Your task to perform on an android device: toggle translation in the chrome app Image 0: 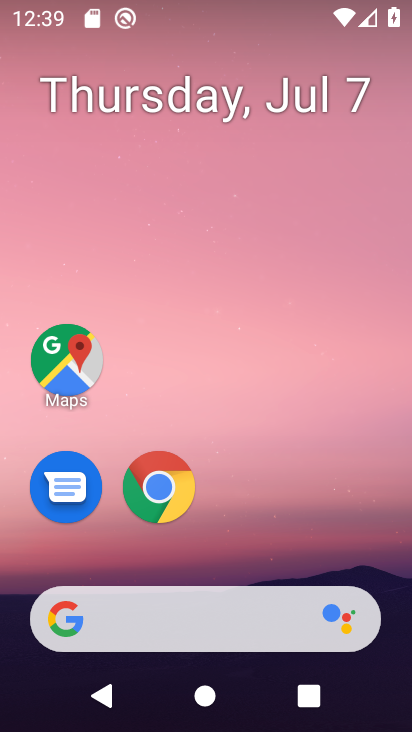
Step 0: drag from (334, 531) to (337, 129)
Your task to perform on an android device: toggle translation in the chrome app Image 1: 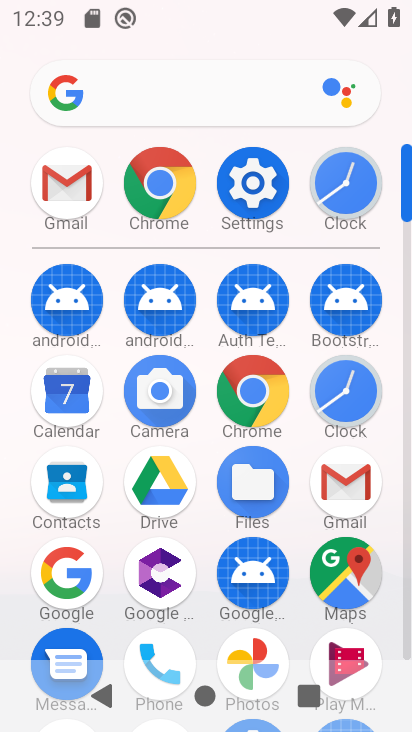
Step 1: click (263, 397)
Your task to perform on an android device: toggle translation in the chrome app Image 2: 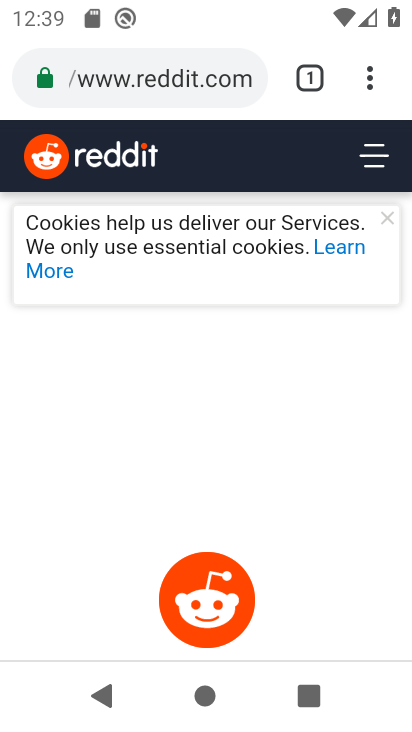
Step 2: click (368, 86)
Your task to perform on an android device: toggle translation in the chrome app Image 3: 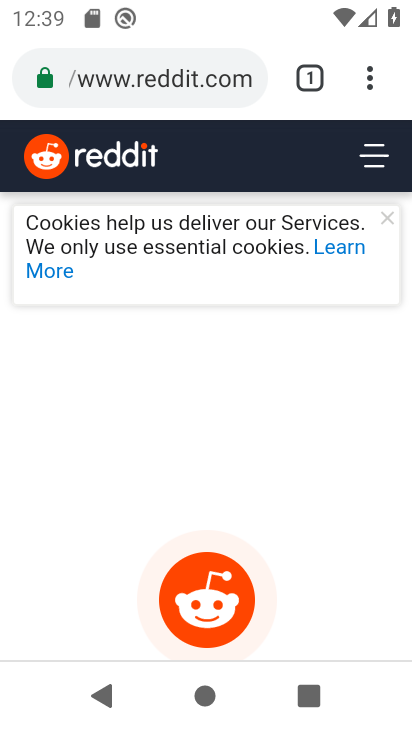
Step 3: click (370, 78)
Your task to perform on an android device: toggle translation in the chrome app Image 4: 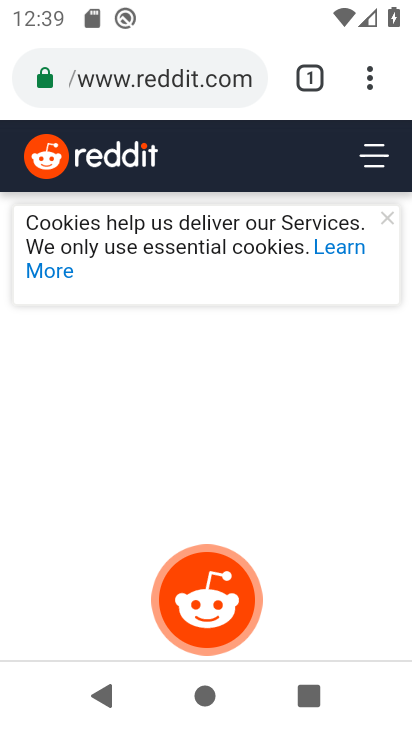
Step 4: click (371, 84)
Your task to perform on an android device: toggle translation in the chrome app Image 5: 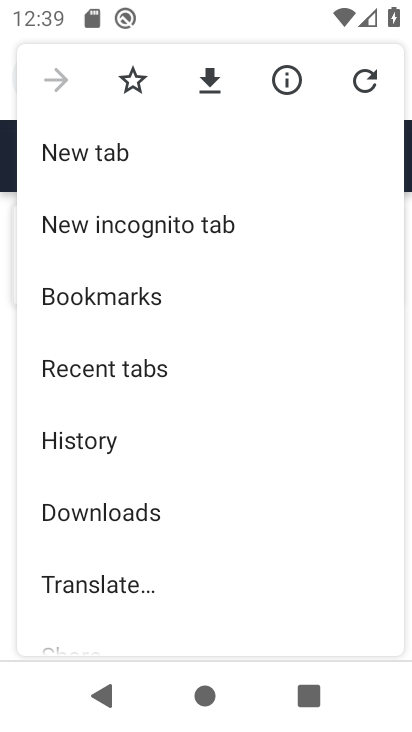
Step 5: drag from (324, 408) to (337, 281)
Your task to perform on an android device: toggle translation in the chrome app Image 6: 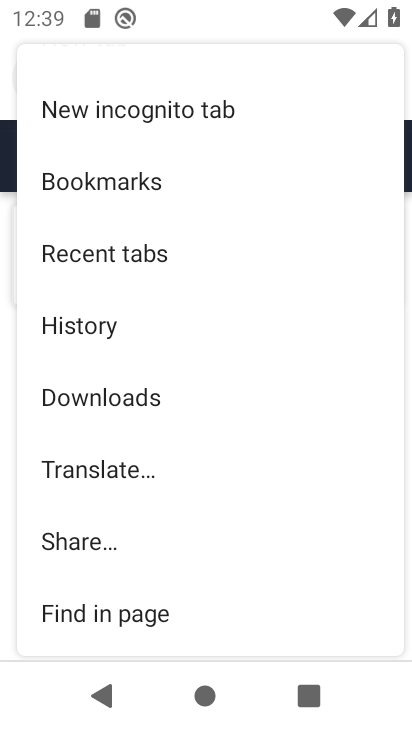
Step 6: drag from (314, 482) to (321, 307)
Your task to perform on an android device: toggle translation in the chrome app Image 7: 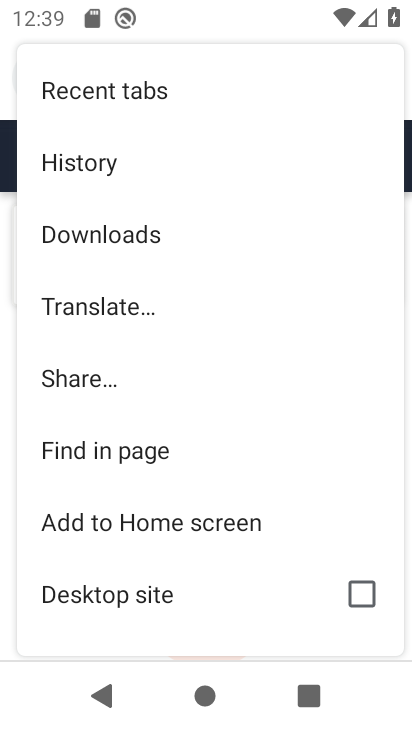
Step 7: drag from (303, 508) to (304, 320)
Your task to perform on an android device: toggle translation in the chrome app Image 8: 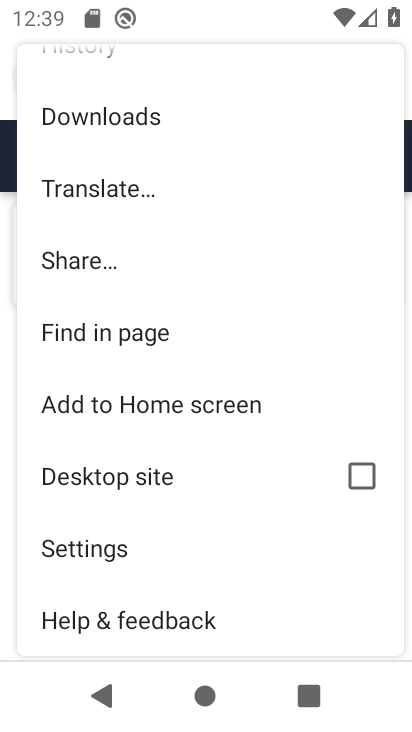
Step 8: drag from (276, 533) to (272, 385)
Your task to perform on an android device: toggle translation in the chrome app Image 9: 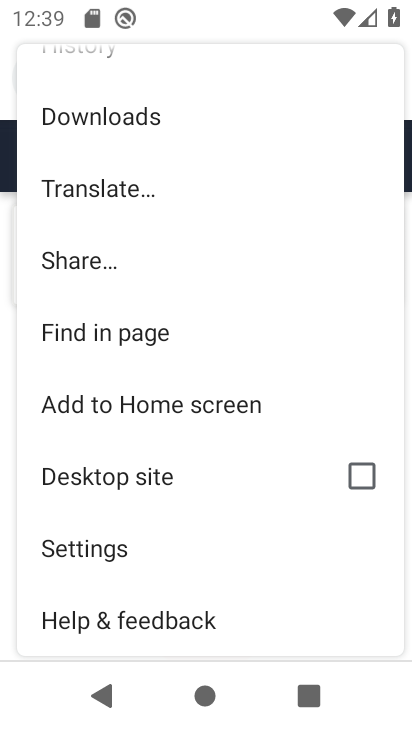
Step 9: drag from (295, 259) to (301, 445)
Your task to perform on an android device: toggle translation in the chrome app Image 10: 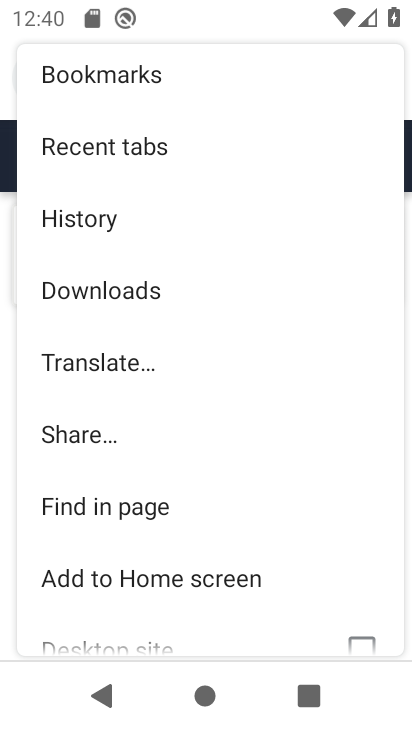
Step 10: drag from (271, 518) to (252, 336)
Your task to perform on an android device: toggle translation in the chrome app Image 11: 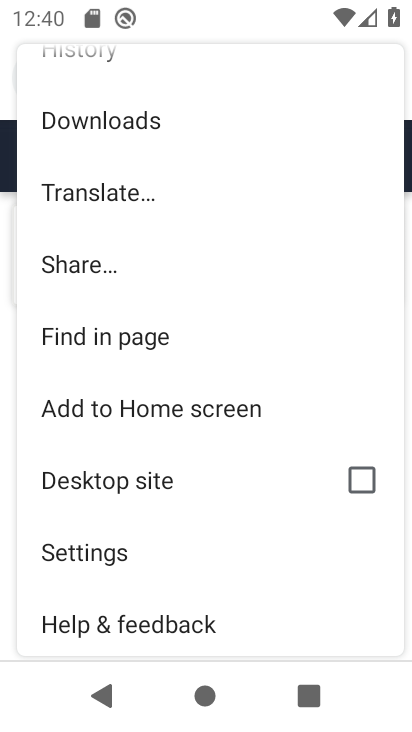
Step 11: click (112, 549)
Your task to perform on an android device: toggle translation in the chrome app Image 12: 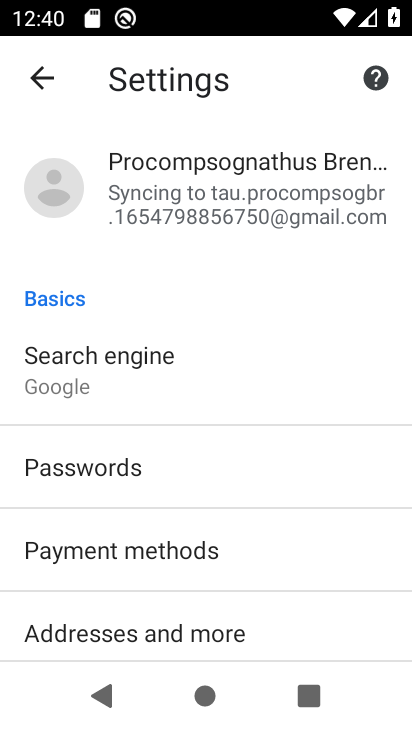
Step 12: drag from (306, 518) to (320, 428)
Your task to perform on an android device: toggle translation in the chrome app Image 13: 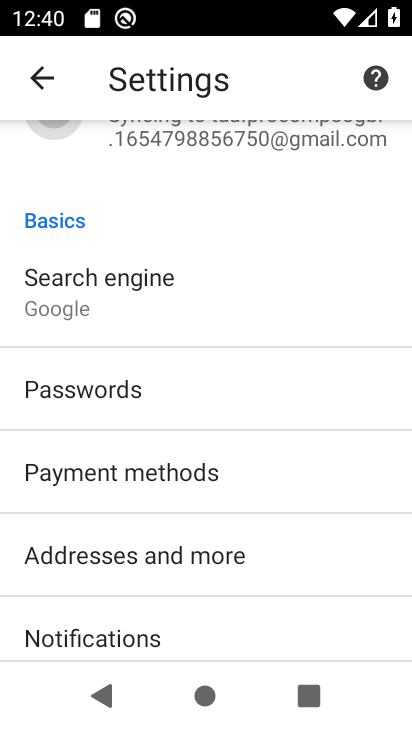
Step 13: drag from (301, 545) to (300, 430)
Your task to perform on an android device: toggle translation in the chrome app Image 14: 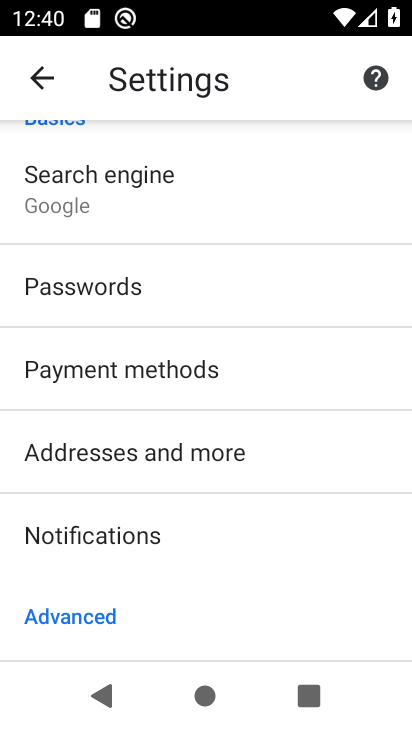
Step 14: drag from (303, 554) to (312, 447)
Your task to perform on an android device: toggle translation in the chrome app Image 15: 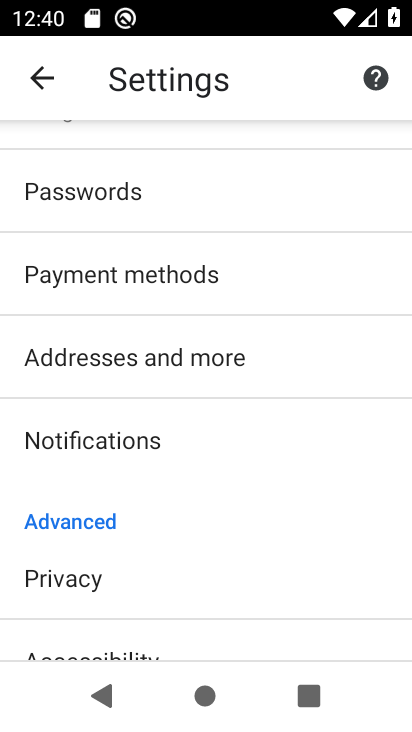
Step 15: drag from (302, 599) to (318, 514)
Your task to perform on an android device: toggle translation in the chrome app Image 16: 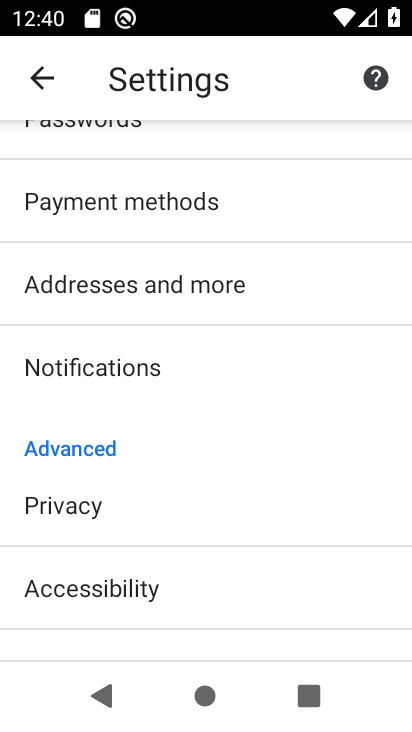
Step 16: drag from (307, 603) to (316, 436)
Your task to perform on an android device: toggle translation in the chrome app Image 17: 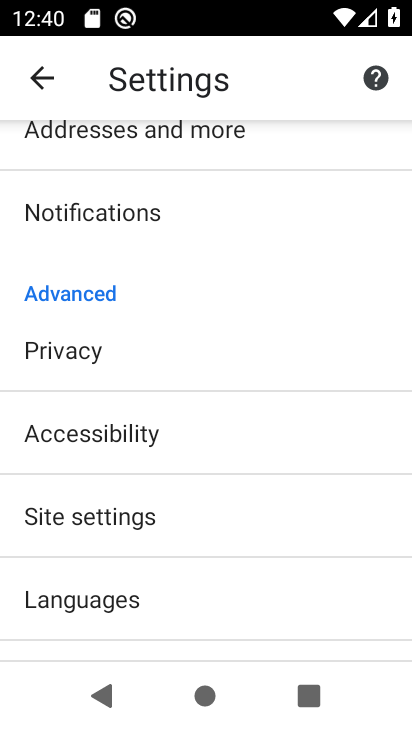
Step 17: drag from (299, 574) to (305, 459)
Your task to perform on an android device: toggle translation in the chrome app Image 18: 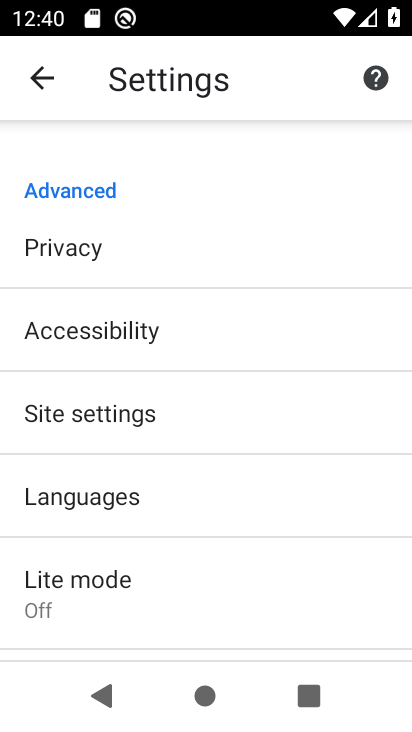
Step 18: drag from (304, 575) to (290, 440)
Your task to perform on an android device: toggle translation in the chrome app Image 19: 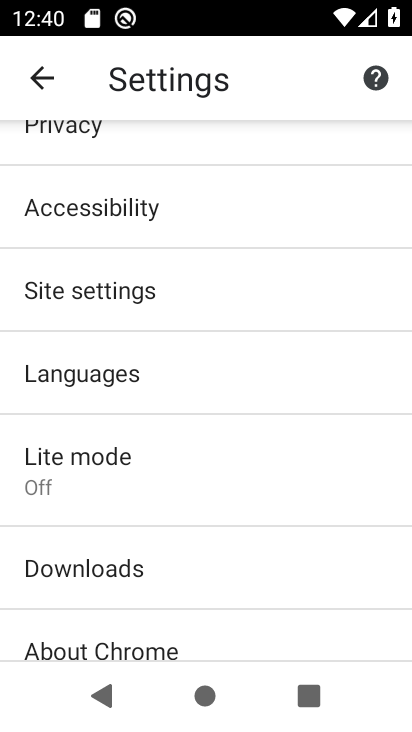
Step 19: drag from (221, 527) to (211, 367)
Your task to perform on an android device: toggle translation in the chrome app Image 20: 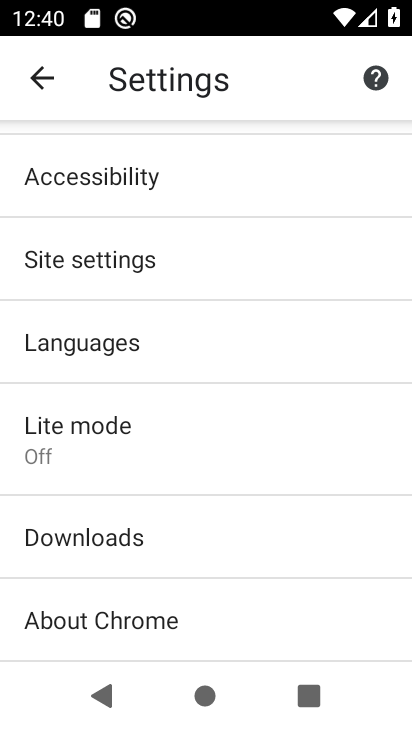
Step 20: click (216, 359)
Your task to perform on an android device: toggle translation in the chrome app Image 21: 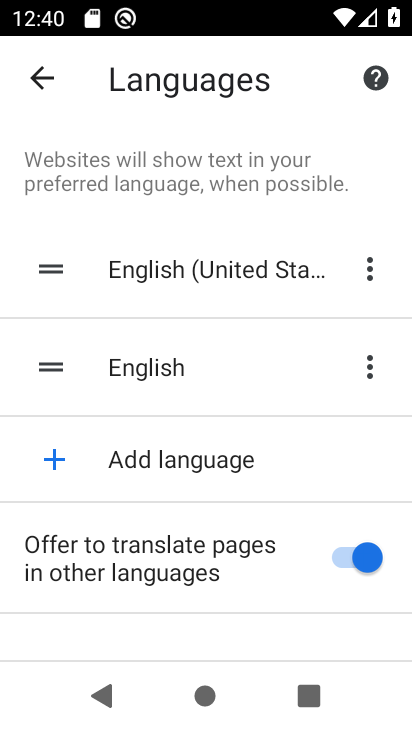
Step 21: click (361, 560)
Your task to perform on an android device: toggle translation in the chrome app Image 22: 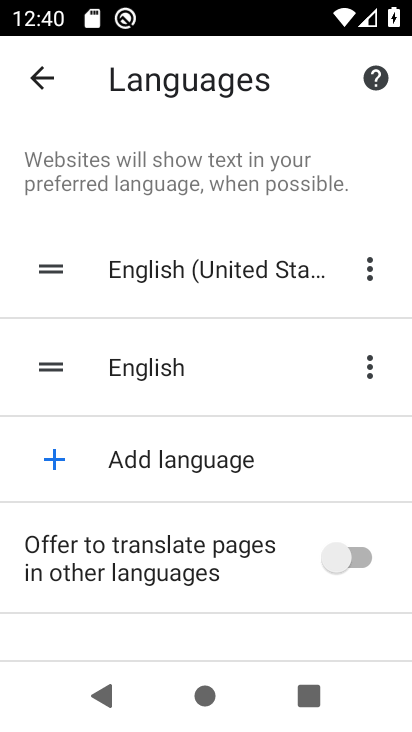
Step 22: task complete